Your task to perform on an android device: change text size in settings app Image 0: 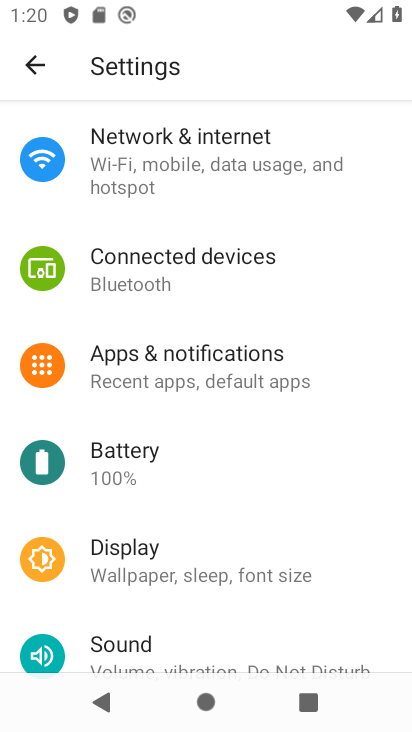
Step 0: click (230, 577)
Your task to perform on an android device: change text size in settings app Image 1: 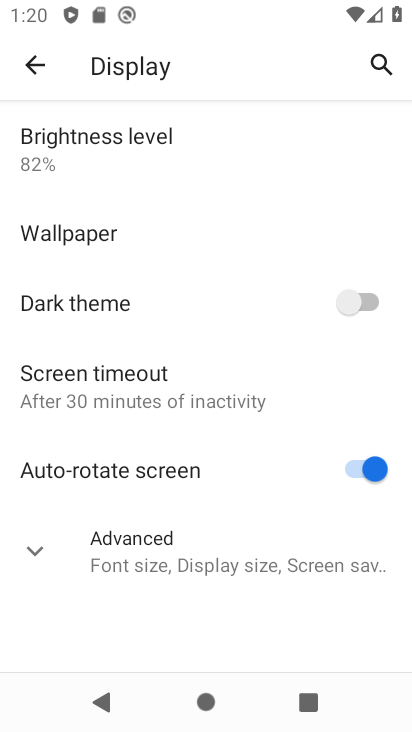
Step 1: click (230, 577)
Your task to perform on an android device: change text size in settings app Image 2: 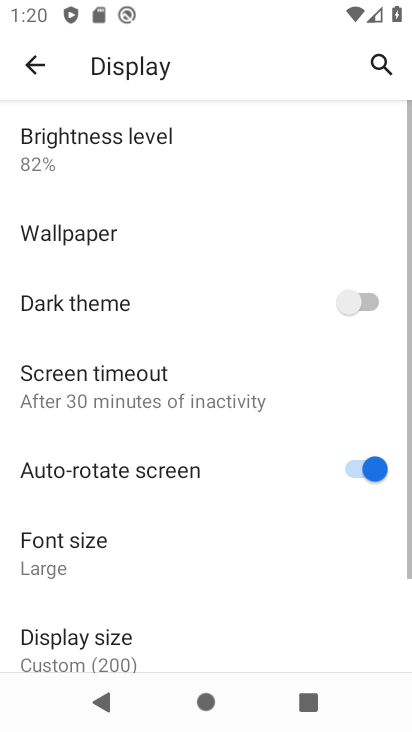
Step 2: click (230, 577)
Your task to perform on an android device: change text size in settings app Image 3: 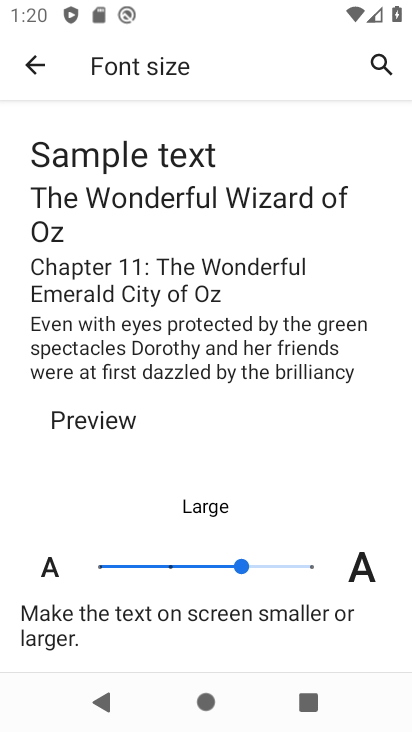
Step 3: click (337, 570)
Your task to perform on an android device: change text size in settings app Image 4: 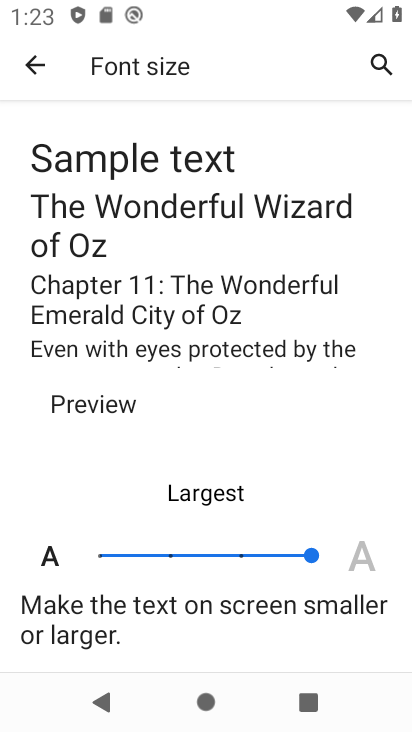
Step 4: task complete